Your task to perform on an android device: Open Chrome and go to the settings page Image 0: 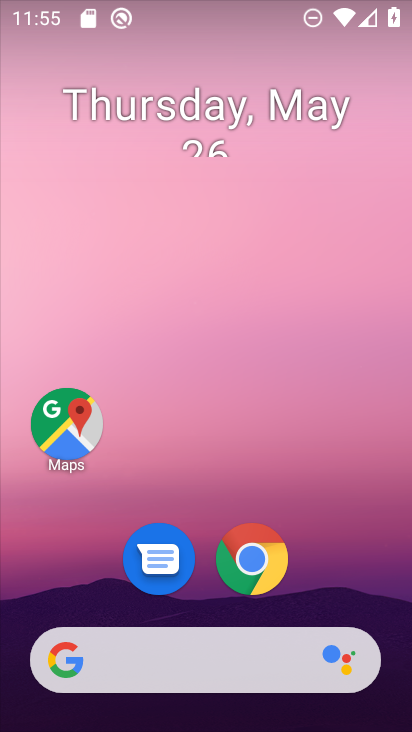
Step 0: click (262, 545)
Your task to perform on an android device: Open Chrome and go to the settings page Image 1: 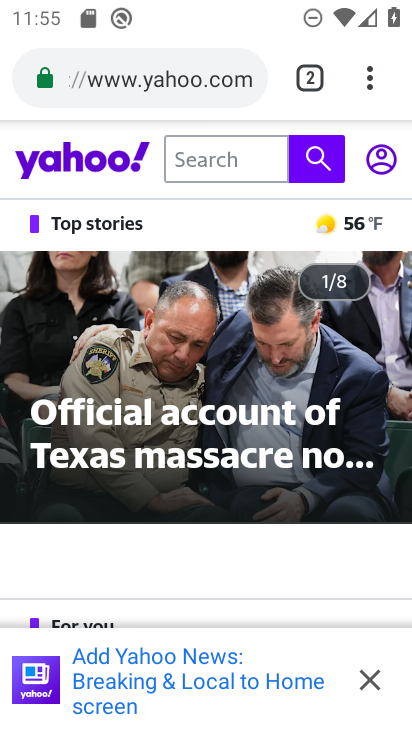
Step 1: click (373, 87)
Your task to perform on an android device: Open Chrome and go to the settings page Image 2: 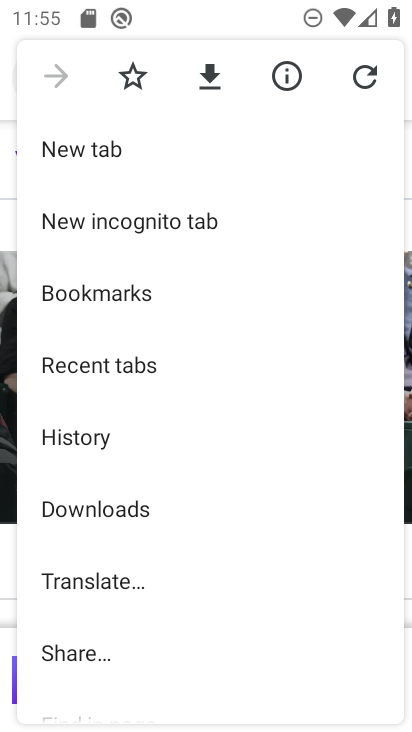
Step 2: drag from (193, 586) to (191, 203)
Your task to perform on an android device: Open Chrome and go to the settings page Image 3: 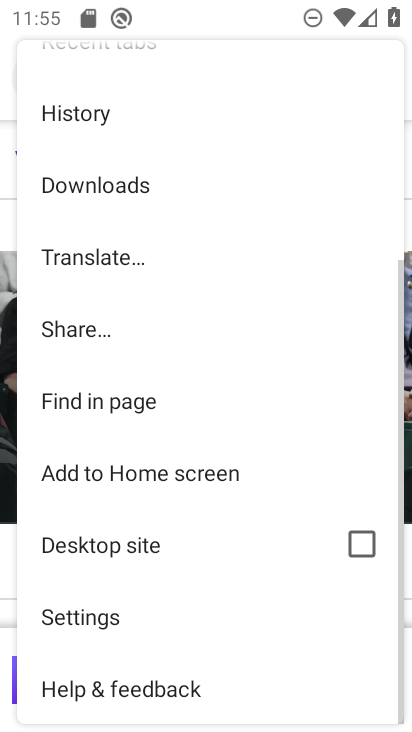
Step 3: click (86, 618)
Your task to perform on an android device: Open Chrome and go to the settings page Image 4: 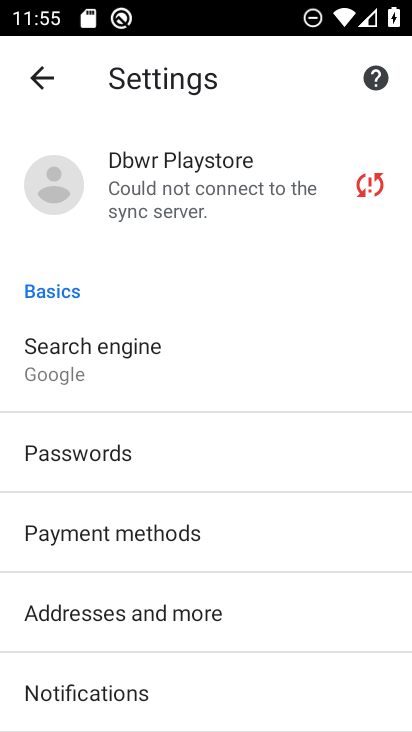
Step 4: task complete